Your task to perform on an android device: Search for sushi restaurants on Maps Image 0: 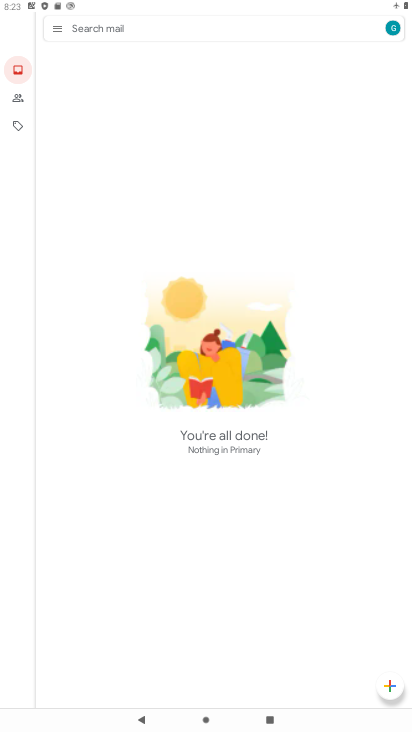
Step 0: press home button
Your task to perform on an android device: Search for sushi restaurants on Maps Image 1: 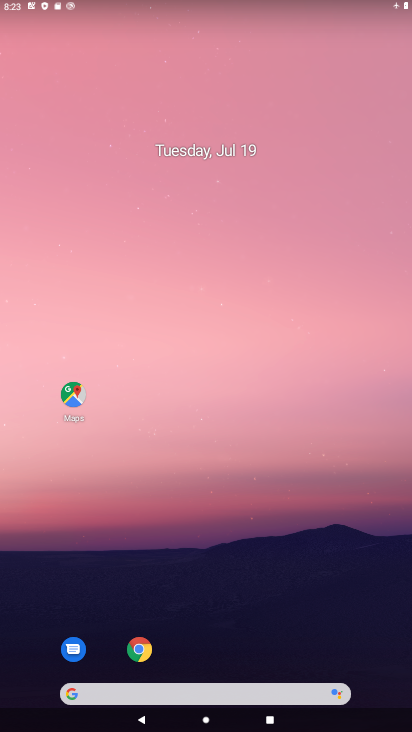
Step 1: click (75, 388)
Your task to perform on an android device: Search for sushi restaurants on Maps Image 2: 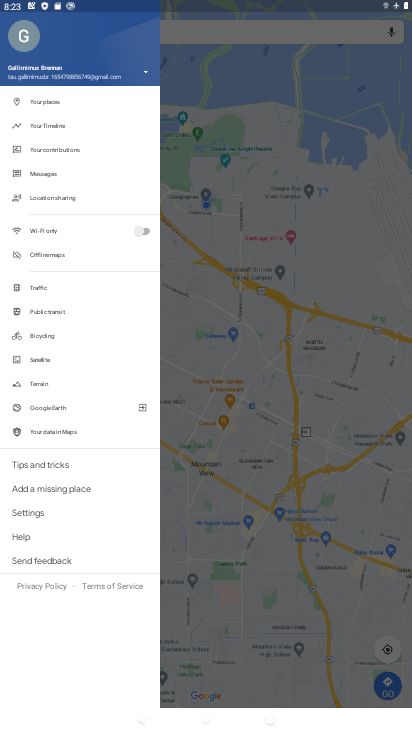
Step 2: click (273, 240)
Your task to perform on an android device: Search for sushi restaurants on Maps Image 3: 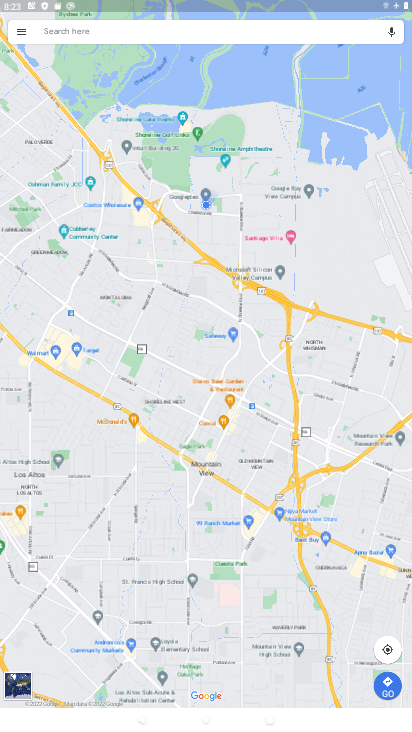
Step 3: click (197, 30)
Your task to perform on an android device: Search for sushi restaurants on Maps Image 4: 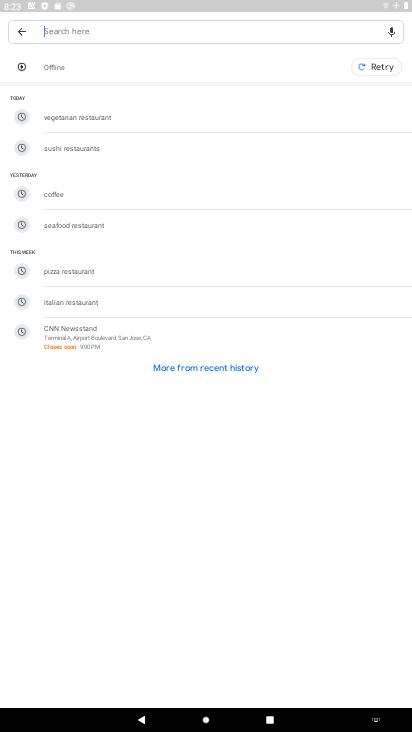
Step 4: type "sushi"
Your task to perform on an android device: Search for sushi restaurants on Maps Image 5: 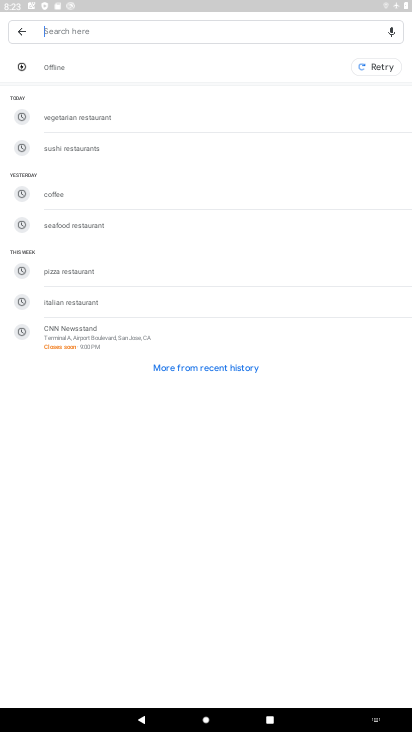
Step 5: click (77, 146)
Your task to perform on an android device: Search for sushi restaurants on Maps Image 6: 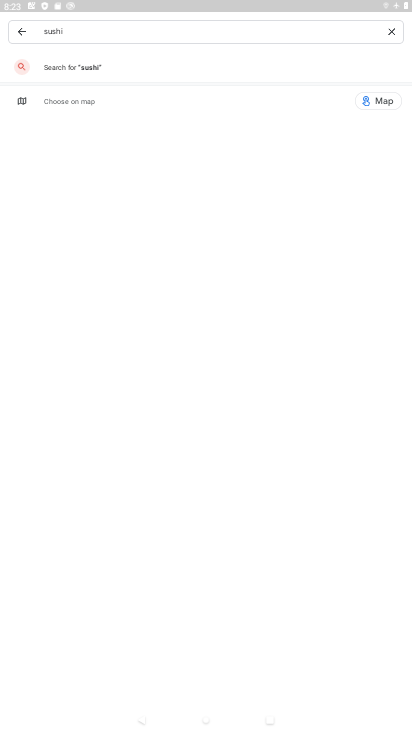
Step 6: type " "
Your task to perform on an android device: Search for sushi restaurants on Maps Image 7: 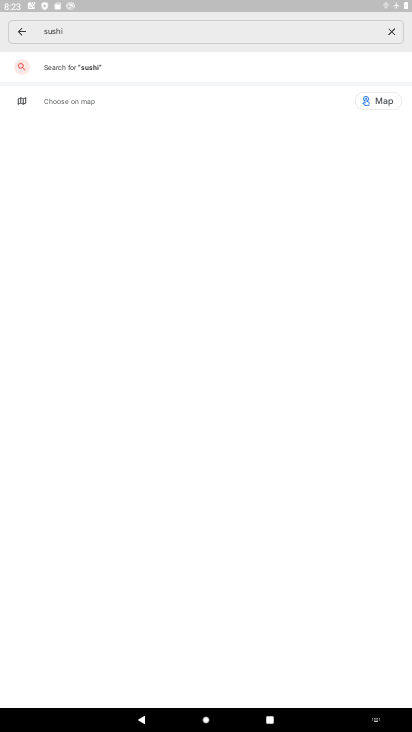
Step 7: type "restaurant"
Your task to perform on an android device: Search for sushi restaurants on Maps Image 8: 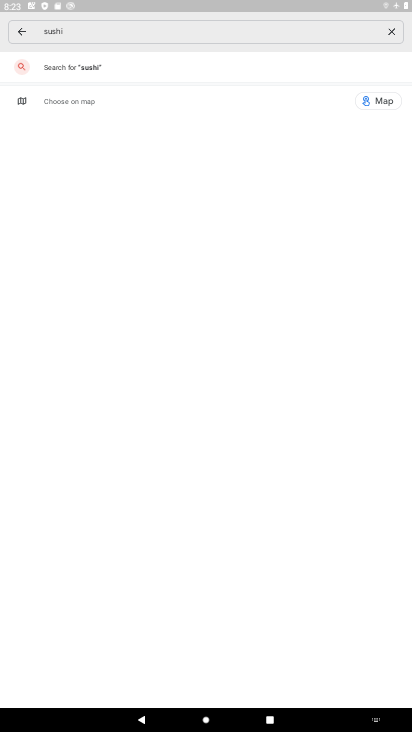
Step 8: click (88, 32)
Your task to perform on an android device: Search for sushi restaurants on Maps Image 9: 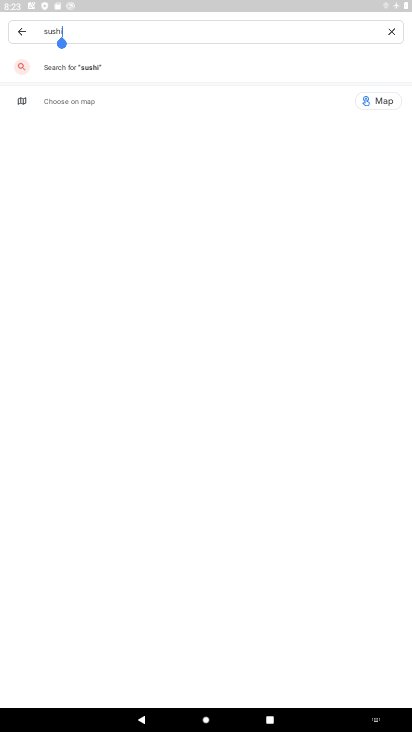
Step 9: click (95, 27)
Your task to perform on an android device: Search for sushi restaurants on Maps Image 10: 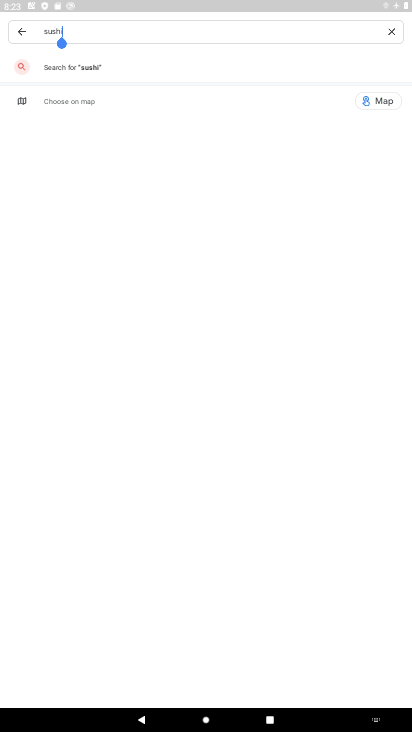
Step 10: type " "
Your task to perform on an android device: Search for sushi restaurants on Maps Image 11: 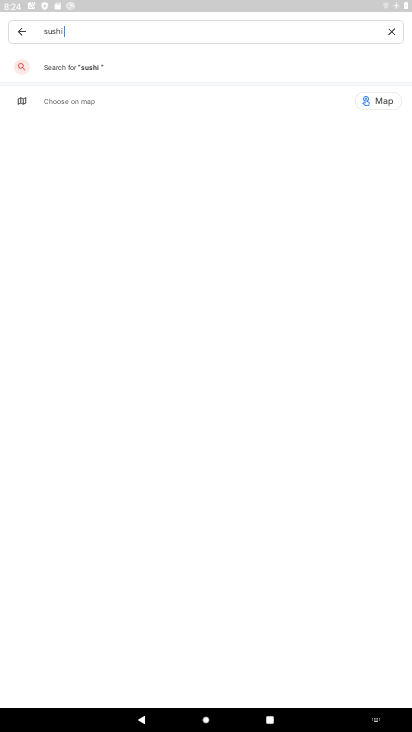
Step 11: type "restaurant"
Your task to perform on an android device: Search for sushi restaurants on Maps Image 12: 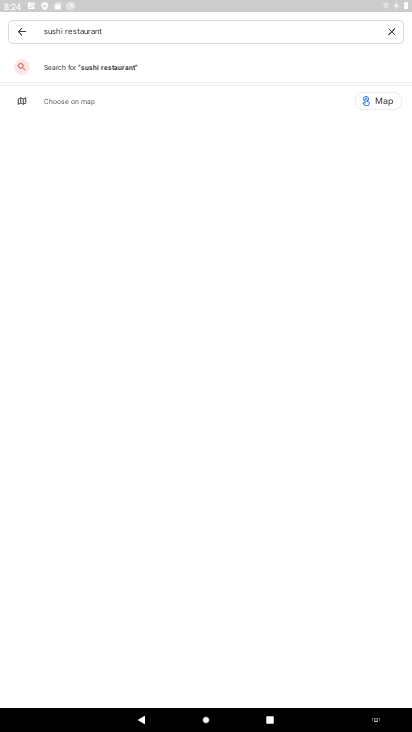
Step 12: click (138, 71)
Your task to perform on an android device: Search for sushi restaurants on Maps Image 13: 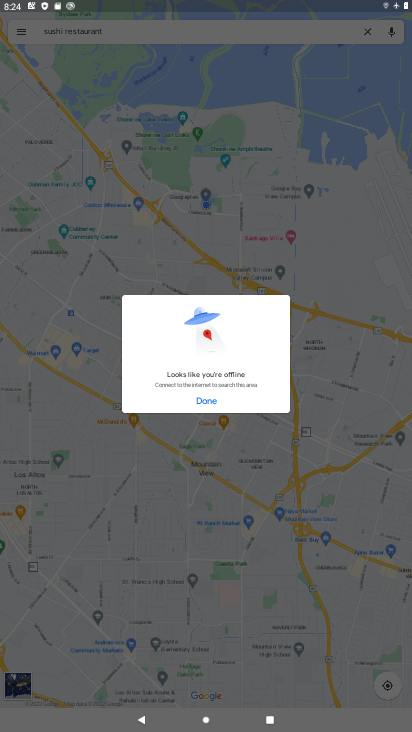
Step 13: task complete